Your task to perform on an android device: What's on my calendar today? Image 0: 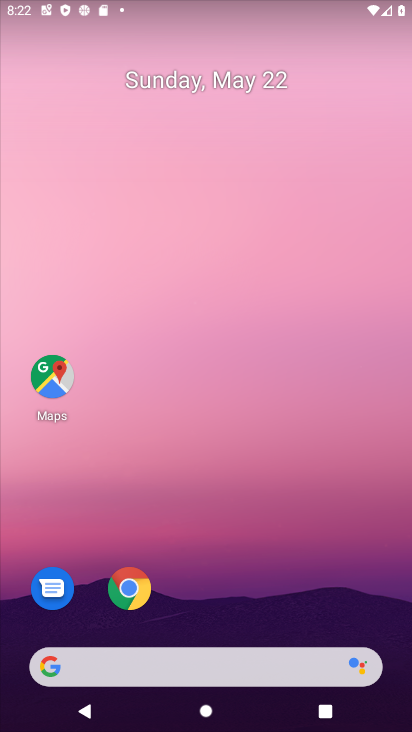
Step 0: drag from (177, 469) to (187, 14)
Your task to perform on an android device: What's on my calendar today? Image 1: 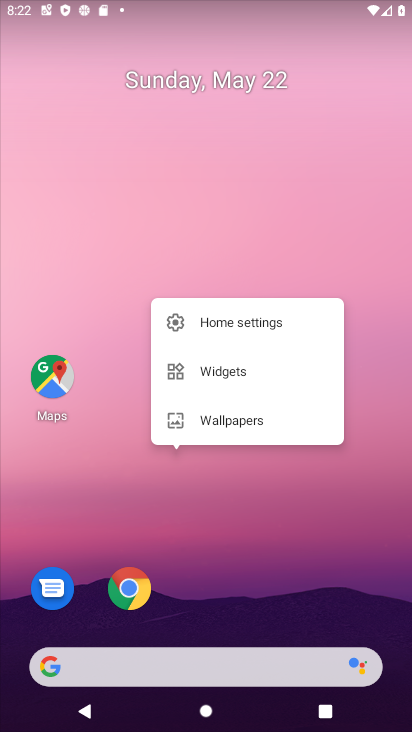
Step 1: click (253, 548)
Your task to perform on an android device: What's on my calendar today? Image 2: 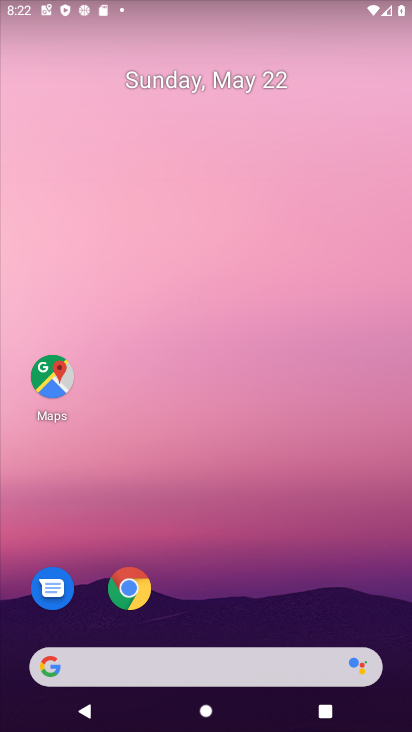
Step 2: drag from (315, 579) to (242, 120)
Your task to perform on an android device: What's on my calendar today? Image 3: 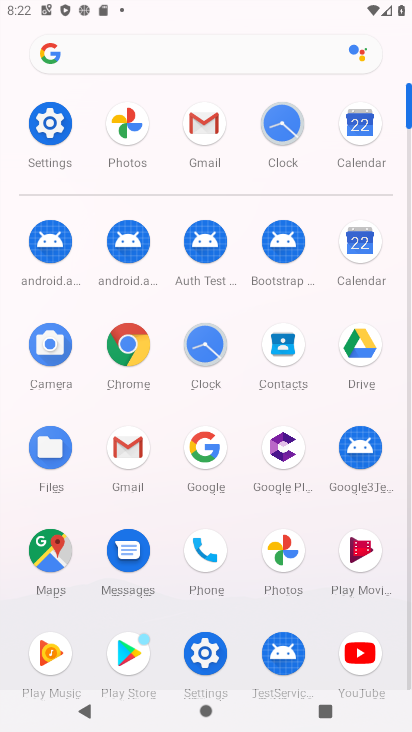
Step 3: click (347, 228)
Your task to perform on an android device: What's on my calendar today? Image 4: 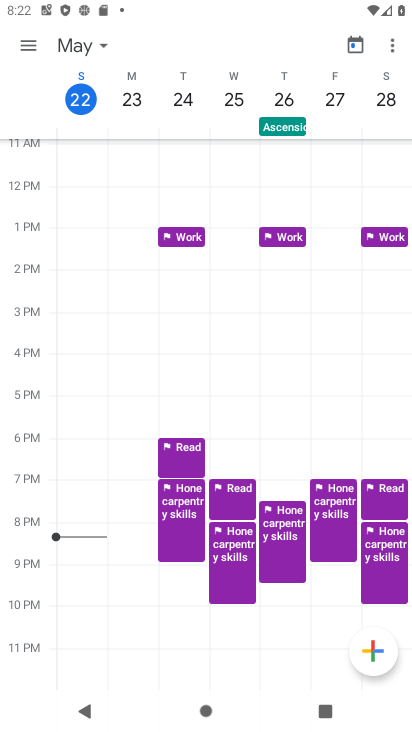
Step 4: click (71, 105)
Your task to perform on an android device: What's on my calendar today? Image 5: 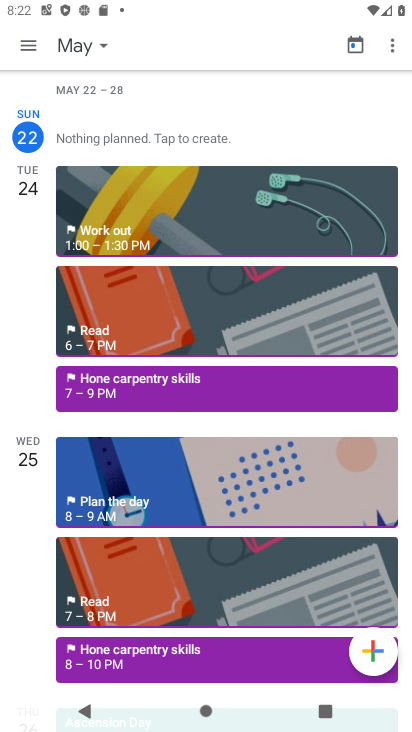
Step 5: click (29, 50)
Your task to perform on an android device: What's on my calendar today? Image 6: 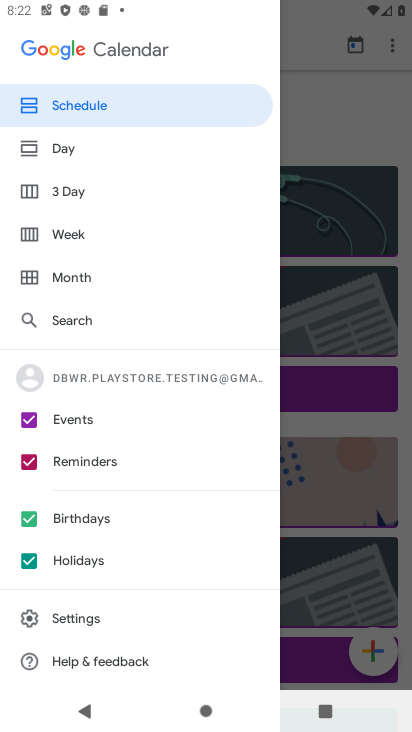
Step 6: click (85, 145)
Your task to perform on an android device: What's on my calendar today? Image 7: 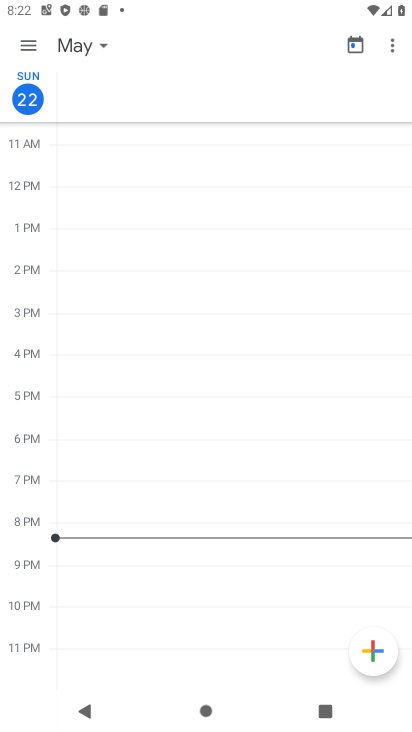
Step 7: task complete